Your task to perform on an android device: turn pop-ups on in chrome Image 0: 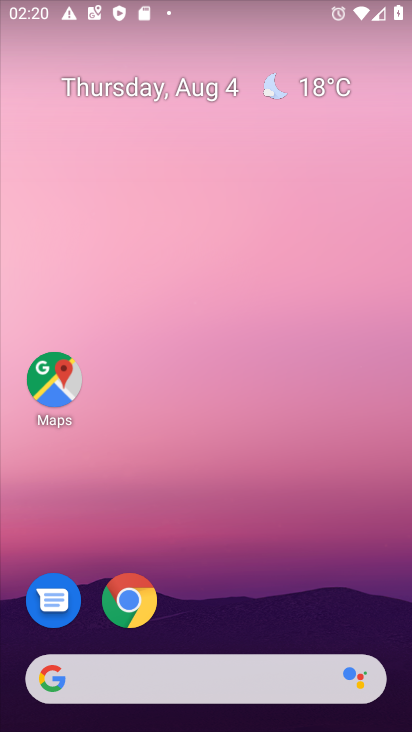
Step 0: drag from (141, 684) to (324, 211)
Your task to perform on an android device: turn pop-ups on in chrome Image 1: 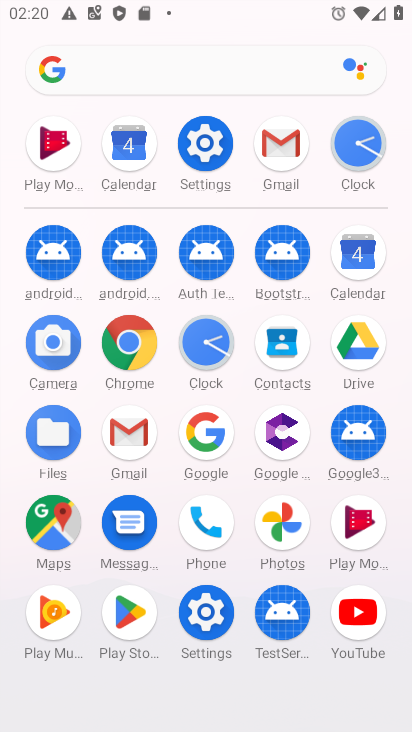
Step 1: click (132, 340)
Your task to perform on an android device: turn pop-ups on in chrome Image 2: 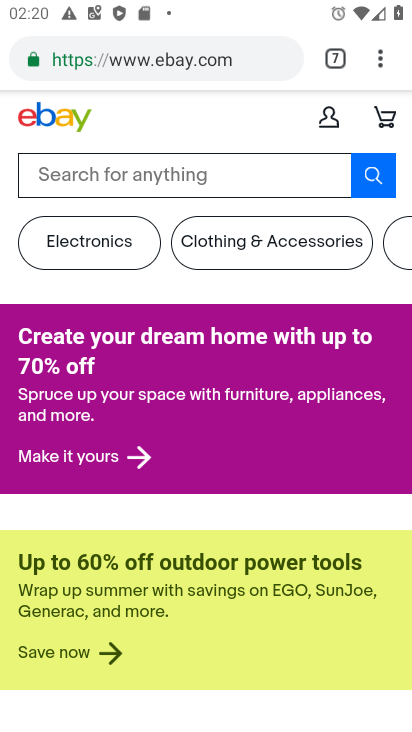
Step 2: drag from (379, 60) to (200, 624)
Your task to perform on an android device: turn pop-ups on in chrome Image 3: 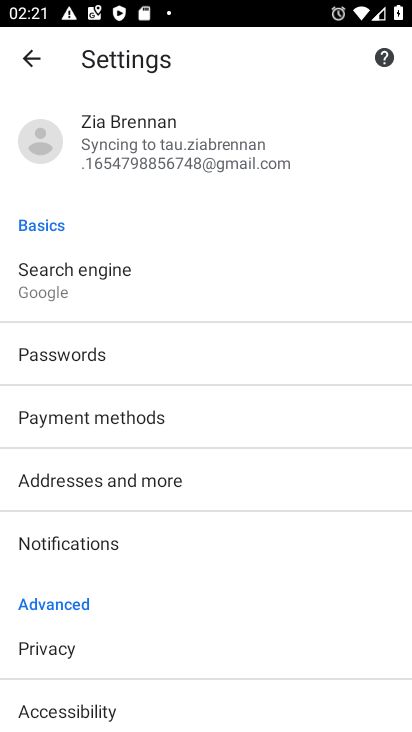
Step 3: drag from (154, 654) to (358, 127)
Your task to perform on an android device: turn pop-ups on in chrome Image 4: 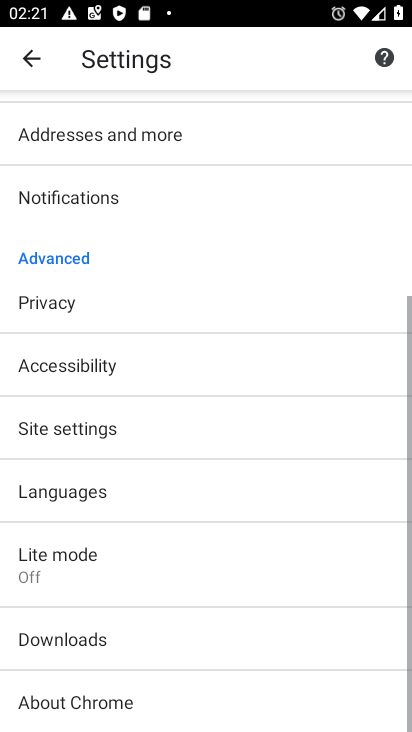
Step 4: click (100, 427)
Your task to perform on an android device: turn pop-ups on in chrome Image 5: 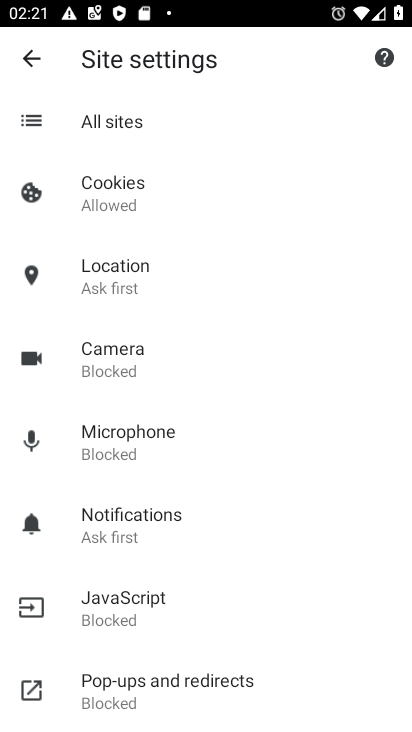
Step 5: drag from (220, 599) to (320, 360)
Your task to perform on an android device: turn pop-ups on in chrome Image 6: 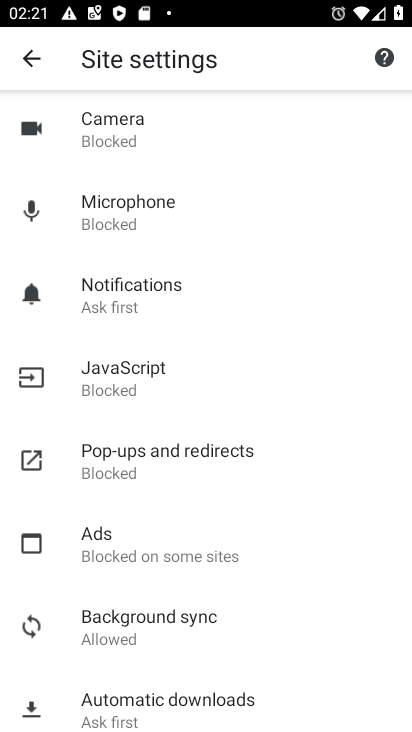
Step 6: click (136, 448)
Your task to perform on an android device: turn pop-ups on in chrome Image 7: 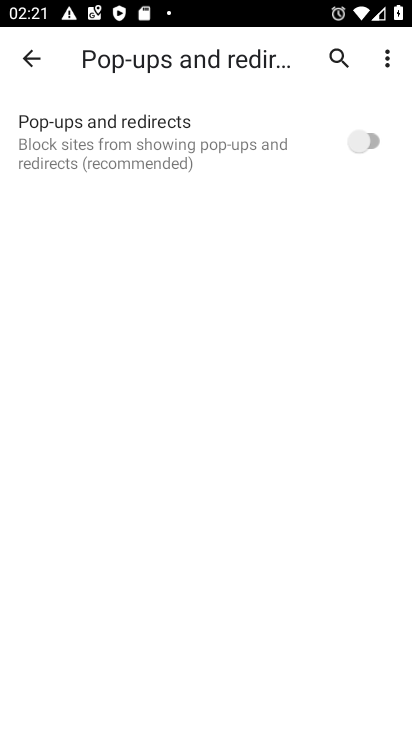
Step 7: click (372, 136)
Your task to perform on an android device: turn pop-ups on in chrome Image 8: 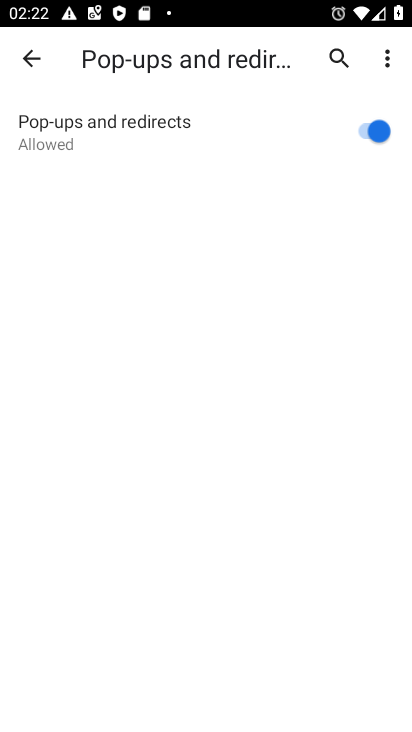
Step 8: task complete